Your task to perform on an android device: turn on airplane mode Image 0: 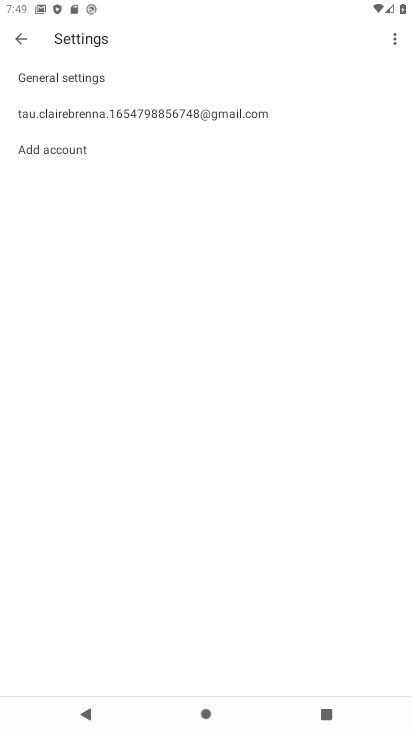
Step 0: drag from (217, 11) to (173, 336)
Your task to perform on an android device: turn on airplane mode Image 1: 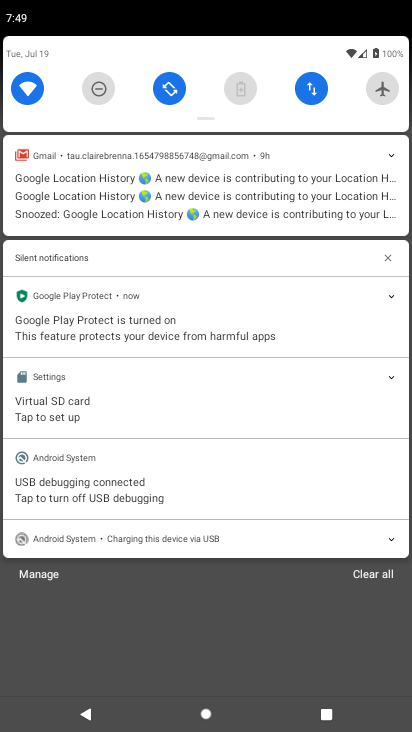
Step 1: click (391, 101)
Your task to perform on an android device: turn on airplane mode Image 2: 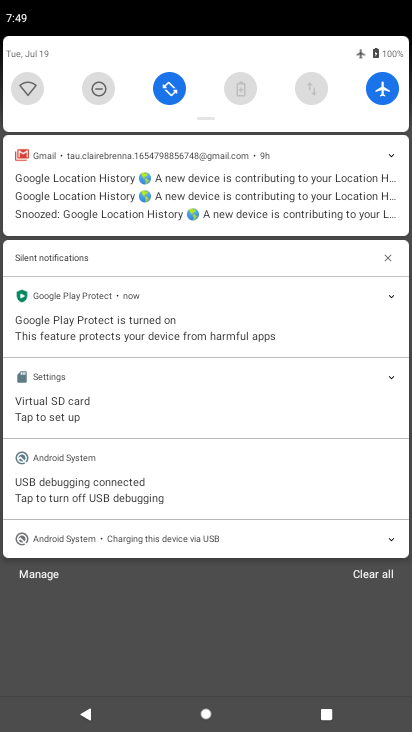
Step 2: task complete